Your task to perform on an android device: Open the Play Movies app and select the watchlist tab. Image 0: 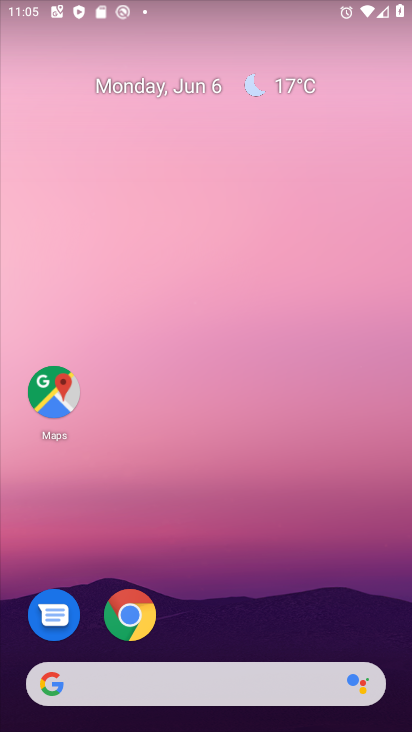
Step 0: press home button
Your task to perform on an android device: Open the Play Movies app and select the watchlist tab. Image 1: 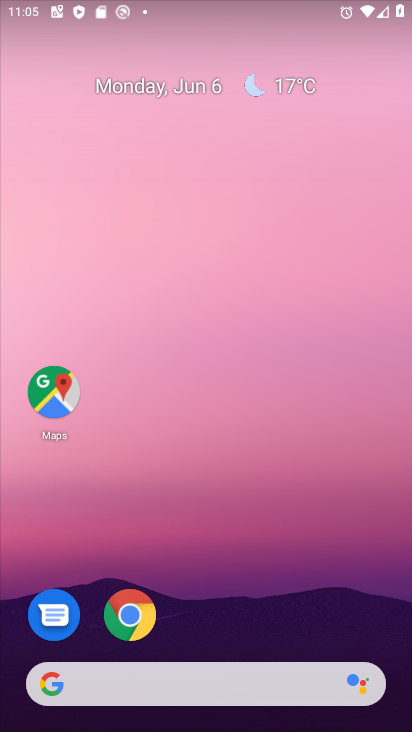
Step 1: drag from (213, 640) to (255, 57)
Your task to perform on an android device: Open the Play Movies app and select the watchlist tab. Image 2: 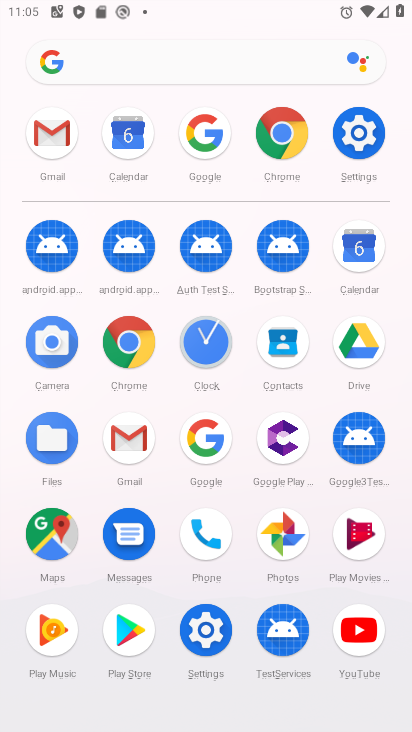
Step 2: click (357, 529)
Your task to perform on an android device: Open the Play Movies app and select the watchlist tab. Image 3: 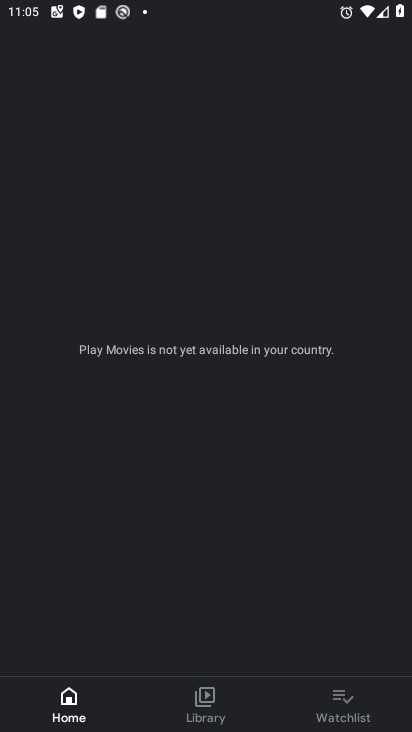
Step 3: click (342, 697)
Your task to perform on an android device: Open the Play Movies app and select the watchlist tab. Image 4: 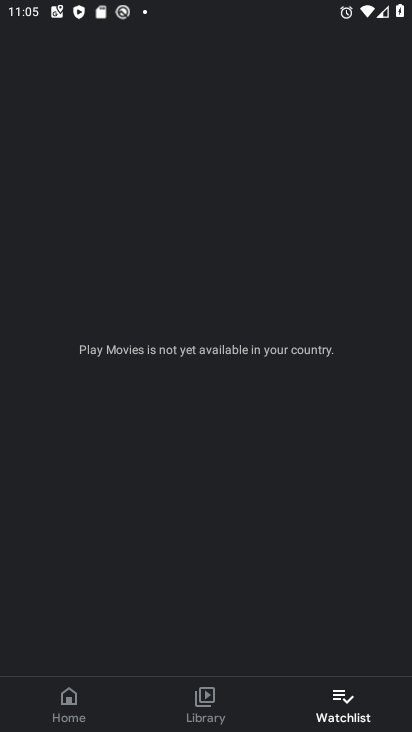
Step 4: task complete